Your task to perform on an android device: turn on location history Image 0: 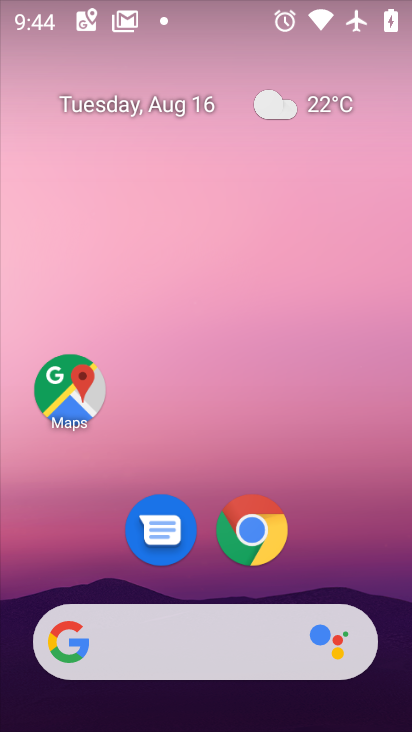
Step 0: drag from (378, 533) to (305, 107)
Your task to perform on an android device: turn on location history Image 1: 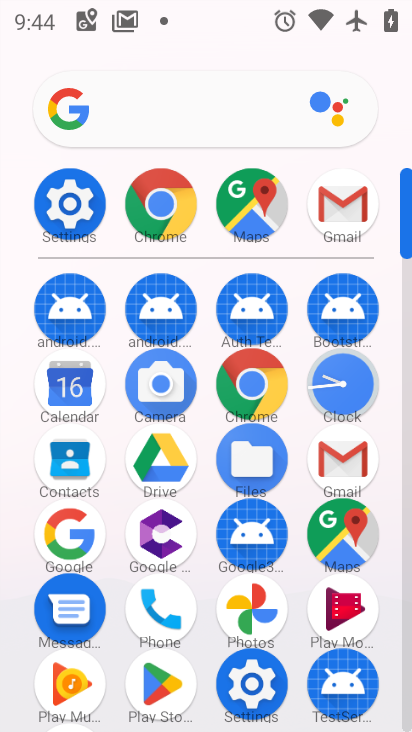
Step 1: click (255, 684)
Your task to perform on an android device: turn on location history Image 2: 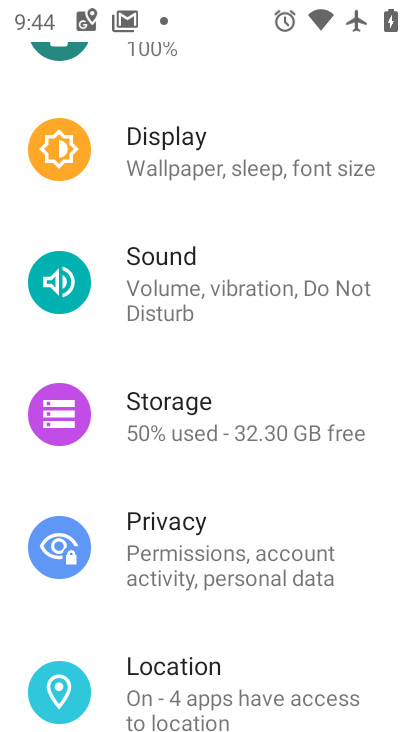
Step 2: click (219, 677)
Your task to perform on an android device: turn on location history Image 3: 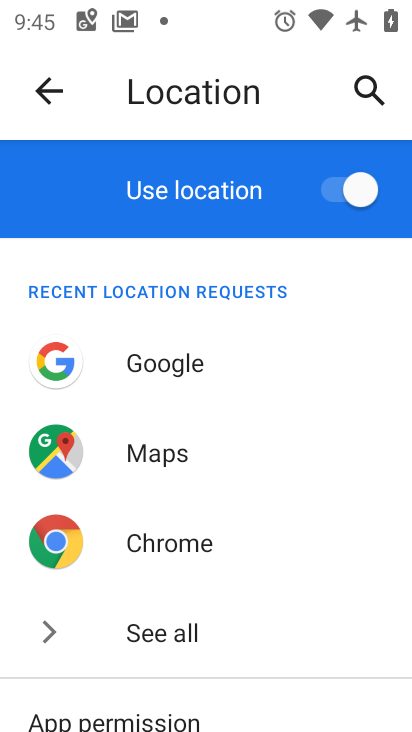
Step 3: drag from (225, 653) to (285, 252)
Your task to perform on an android device: turn on location history Image 4: 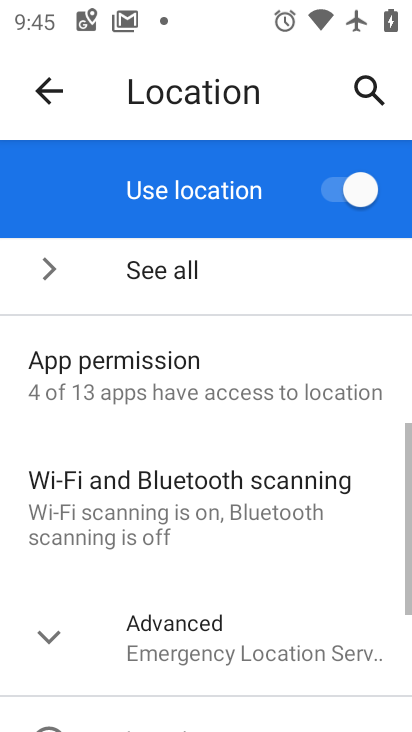
Step 4: click (193, 623)
Your task to perform on an android device: turn on location history Image 5: 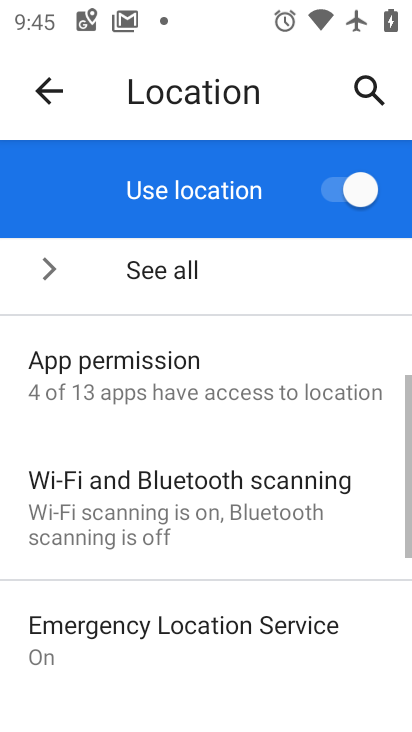
Step 5: drag from (320, 716) to (327, 322)
Your task to perform on an android device: turn on location history Image 6: 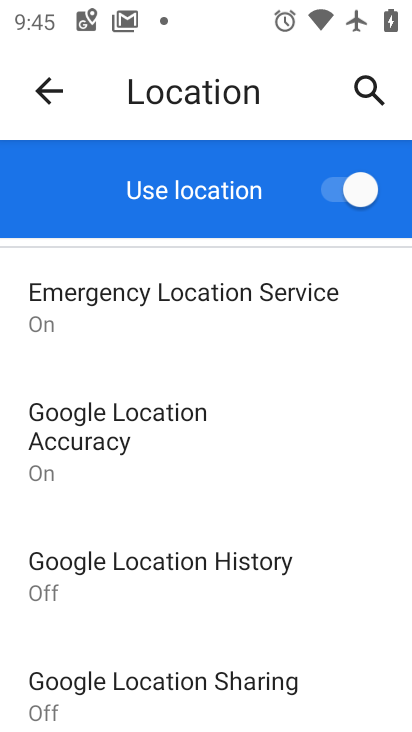
Step 6: click (266, 561)
Your task to perform on an android device: turn on location history Image 7: 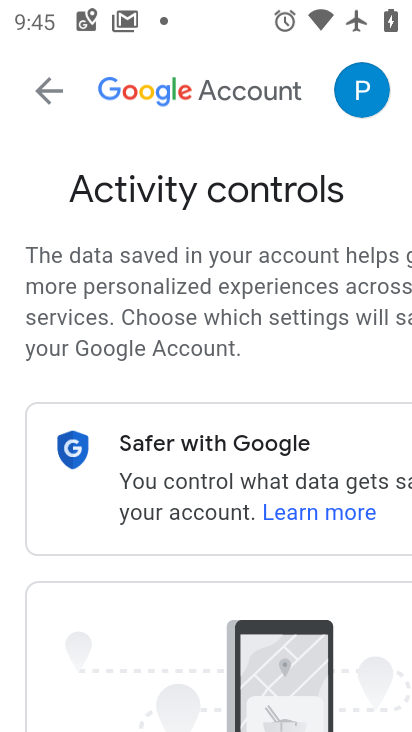
Step 7: drag from (203, 577) to (230, 120)
Your task to perform on an android device: turn on location history Image 8: 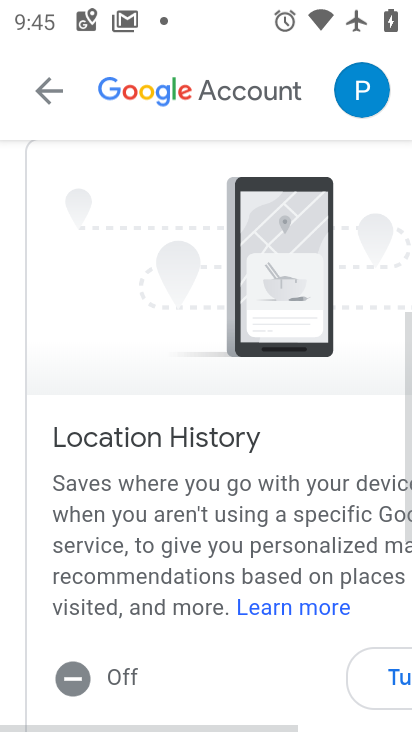
Step 8: drag from (199, 621) to (220, 306)
Your task to perform on an android device: turn on location history Image 9: 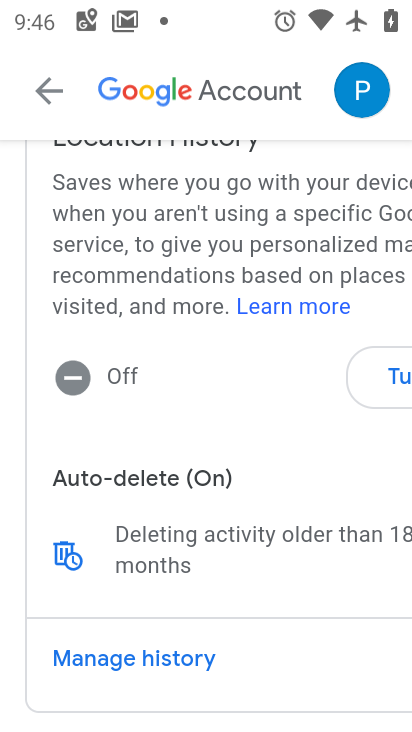
Step 9: click (395, 386)
Your task to perform on an android device: turn on location history Image 10: 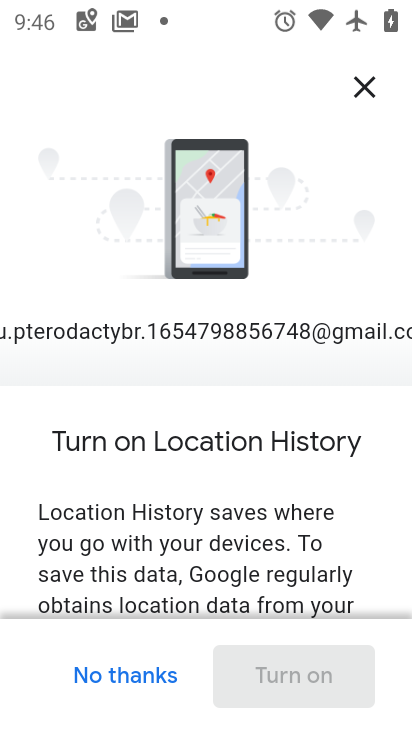
Step 10: drag from (281, 580) to (315, 180)
Your task to perform on an android device: turn on location history Image 11: 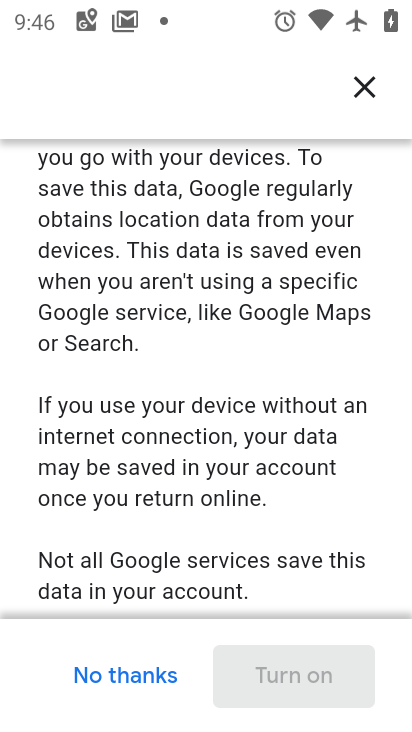
Step 11: drag from (245, 563) to (291, 191)
Your task to perform on an android device: turn on location history Image 12: 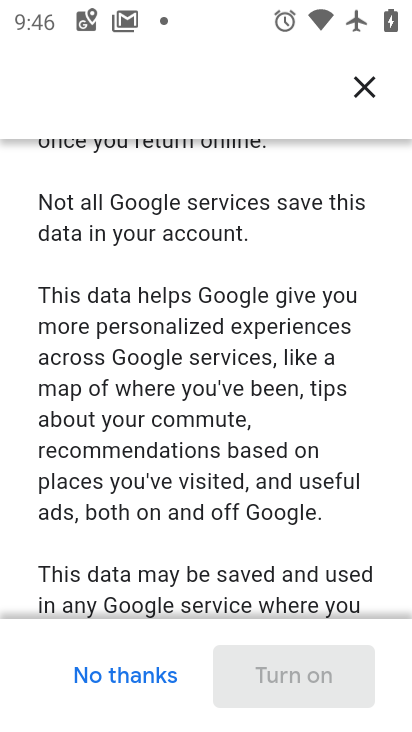
Step 12: drag from (246, 463) to (295, 171)
Your task to perform on an android device: turn on location history Image 13: 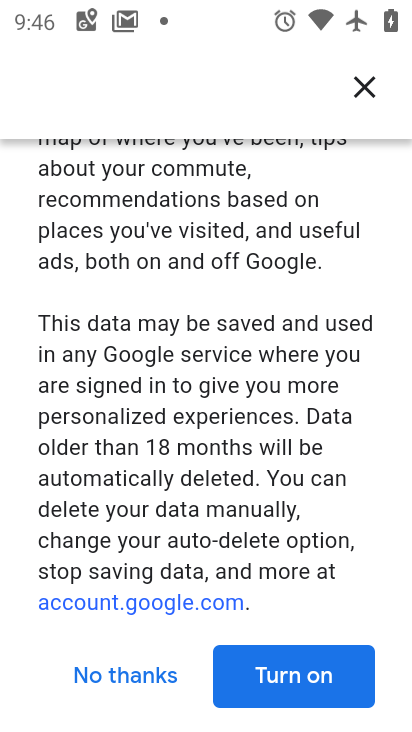
Step 13: click (288, 656)
Your task to perform on an android device: turn on location history Image 14: 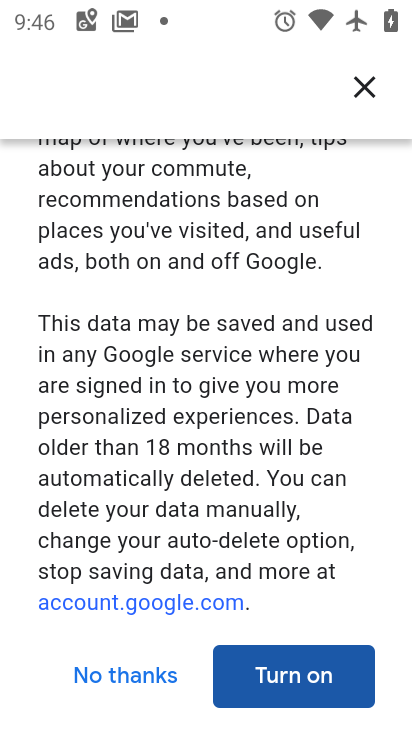
Step 14: click (316, 682)
Your task to perform on an android device: turn on location history Image 15: 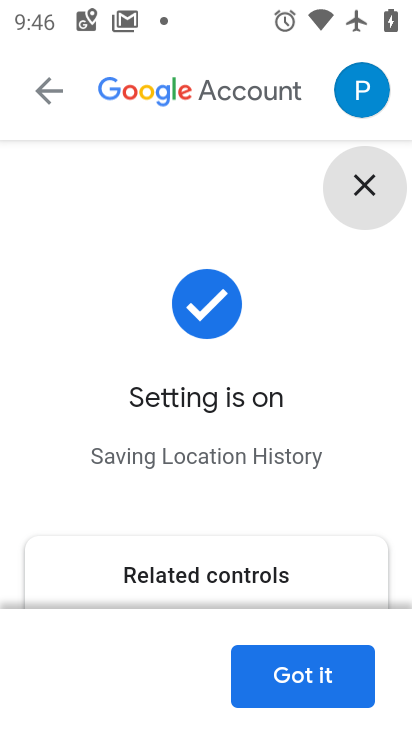
Step 15: task complete